Your task to perform on an android device: toggle sleep mode Image 0: 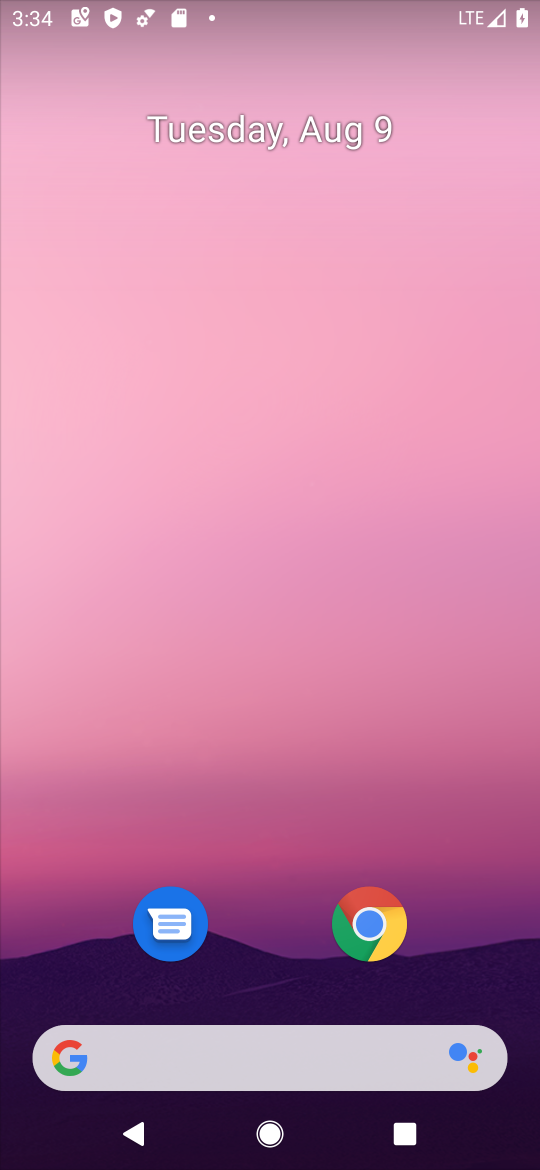
Step 0: drag from (231, 1045) to (372, 269)
Your task to perform on an android device: toggle sleep mode Image 1: 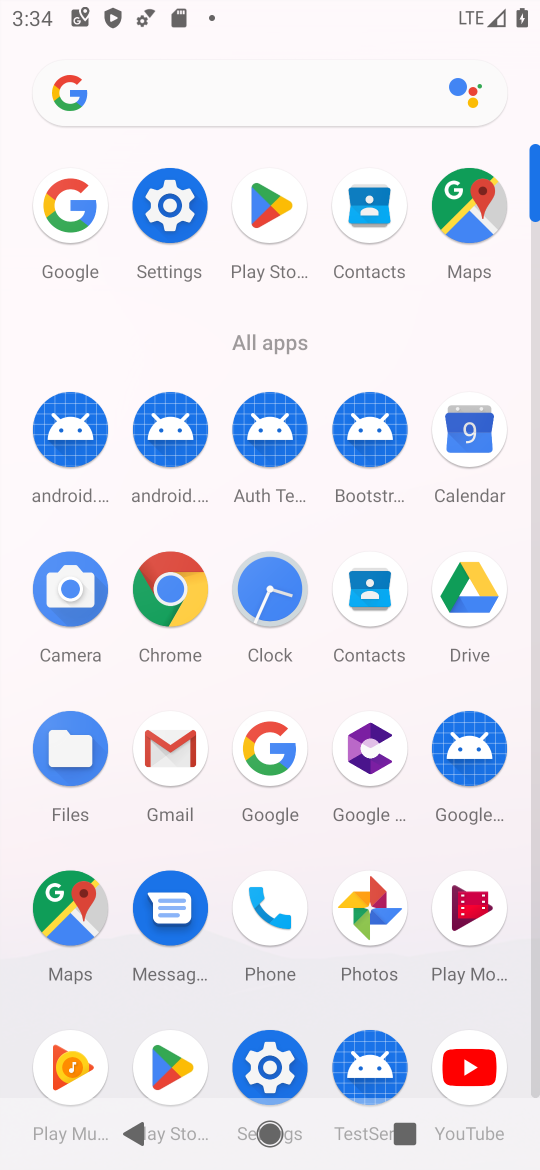
Step 1: click (170, 211)
Your task to perform on an android device: toggle sleep mode Image 2: 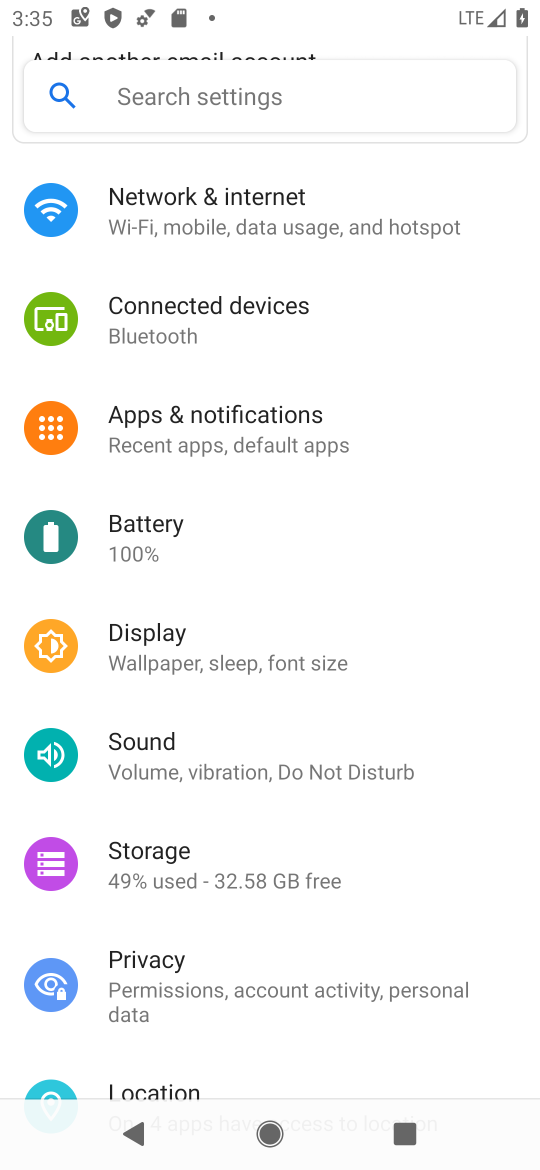
Step 2: click (167, 233)
Your task to perform on an android device: toggle sleep mode Image 3: 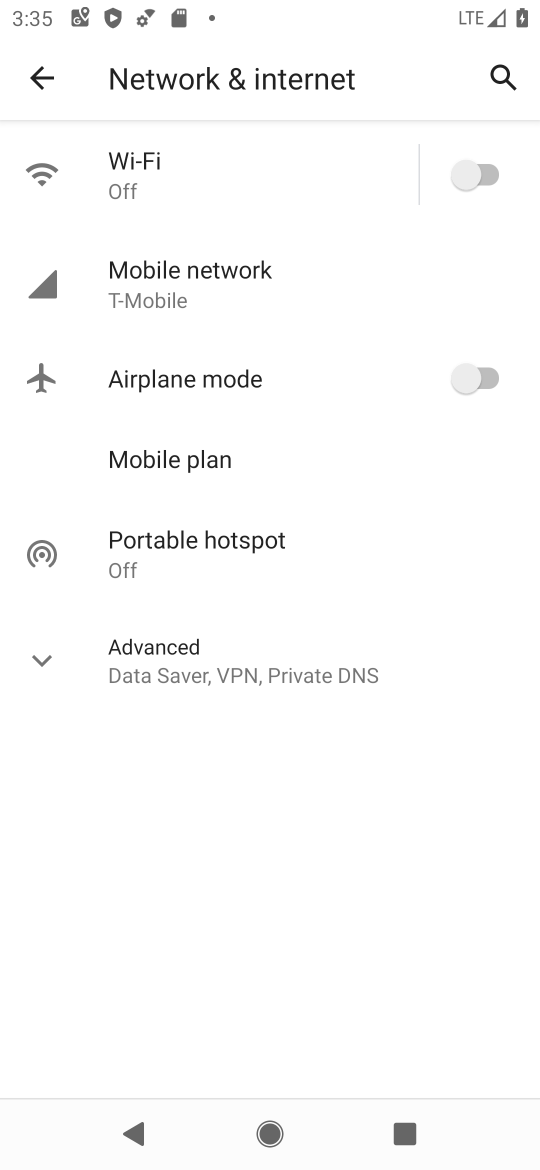
Step 3: press back button
Your task to perform on an android device: toggle sleep mode Image 4: 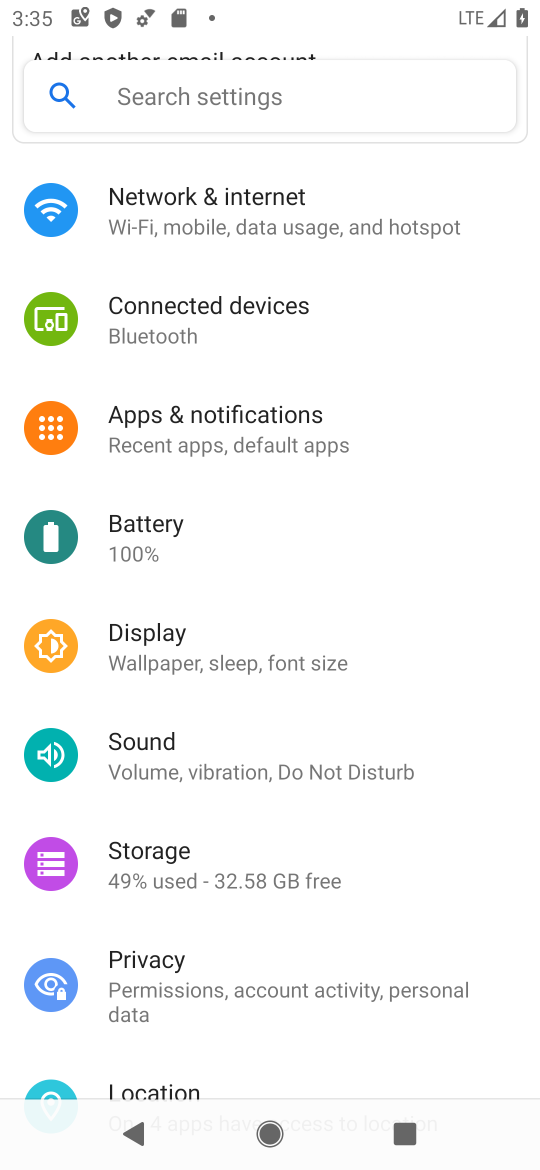
Step 4: click (245, 332)
Your task to perform on an android device: toggle sleep mode Image 5: 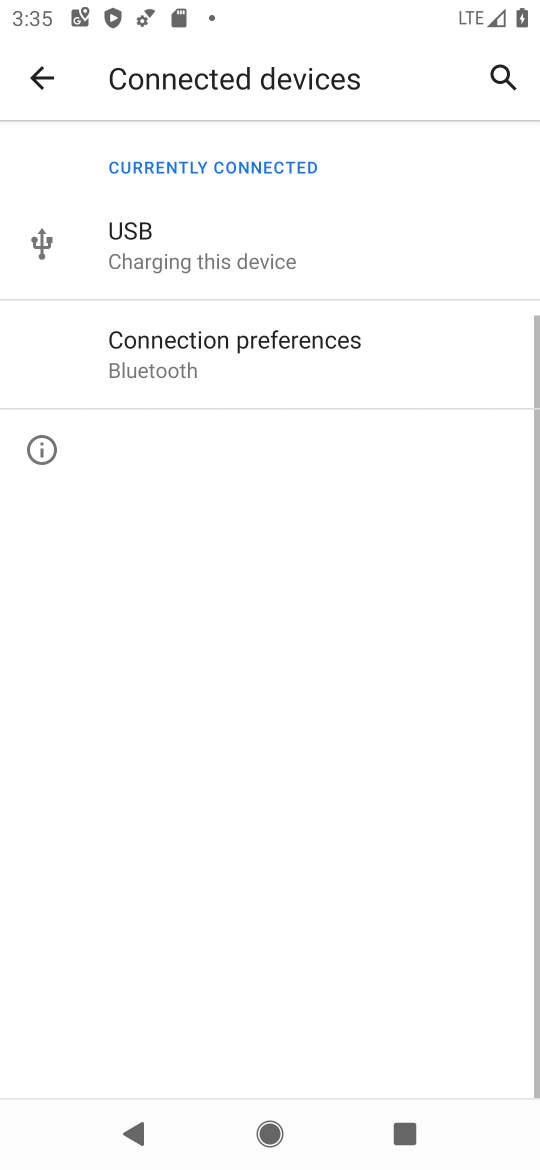
Step 5: press back button
Your task to perform on an android device: toggle sleep mode Image 6: 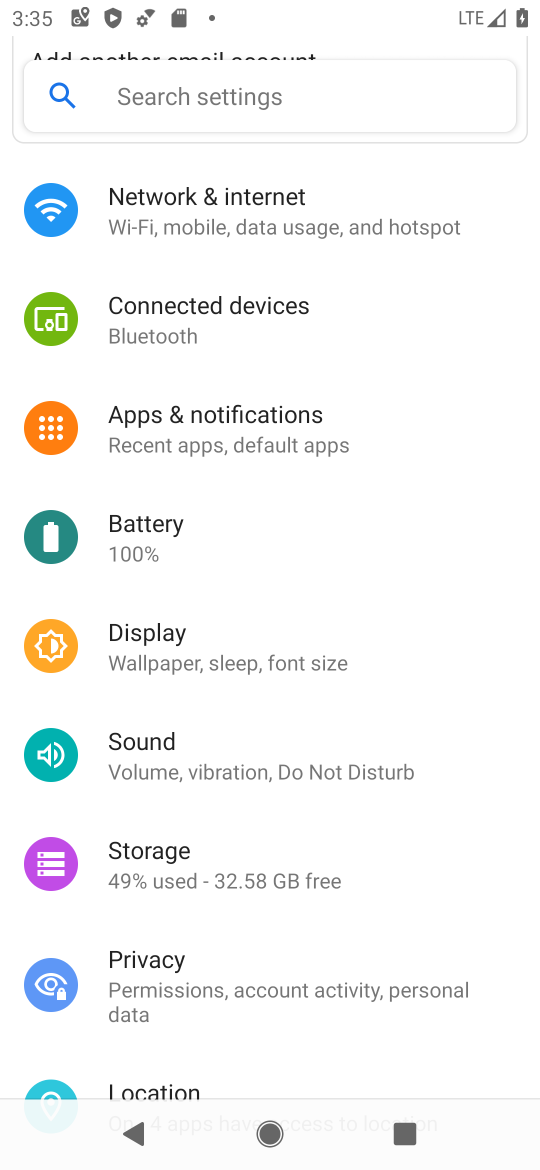
Step 6: click (192, 660)
Your task to perform on an android device: toggle sleep mode Image 7: 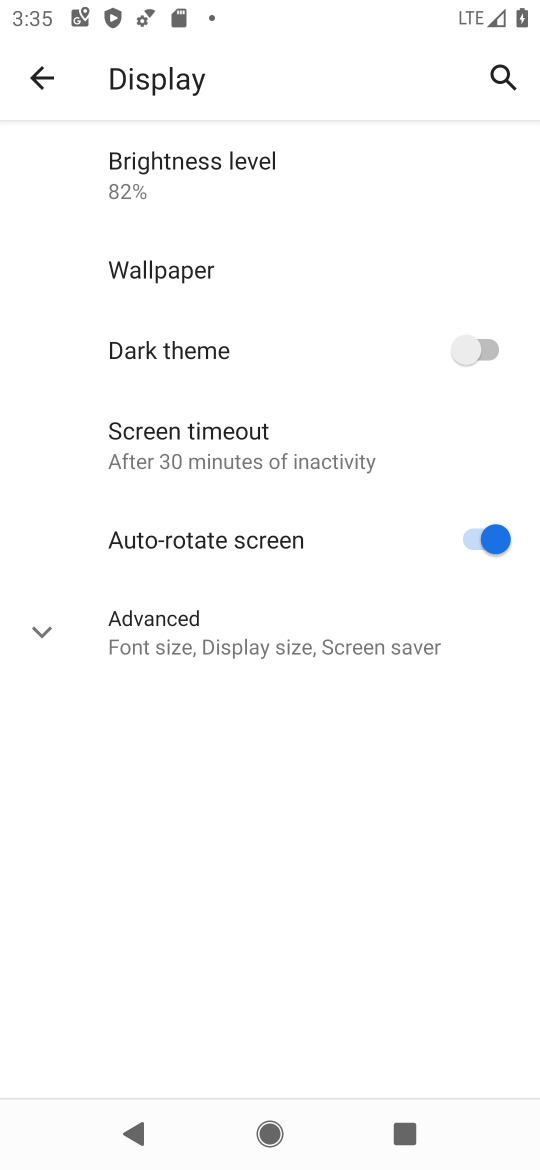
Step 7: click (278, 472)
Your task to perform on an android device: toggle sleep mode Image 8: 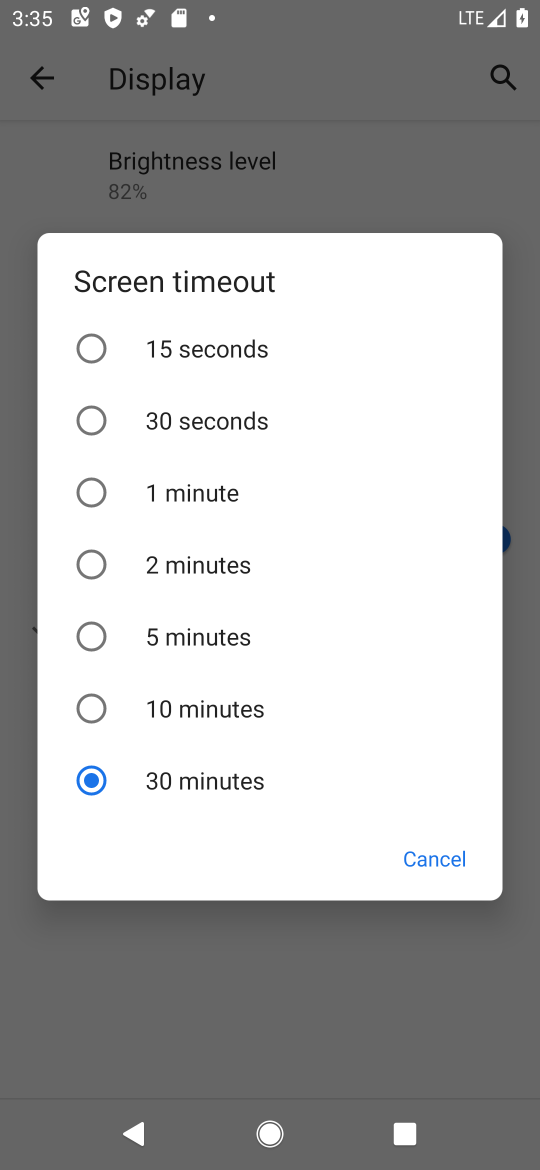
Step 8: task complete